Your task to perform on an android device: open app "Mercado Libre" (install if not already installed), go to login, and select forgot password Image 0: 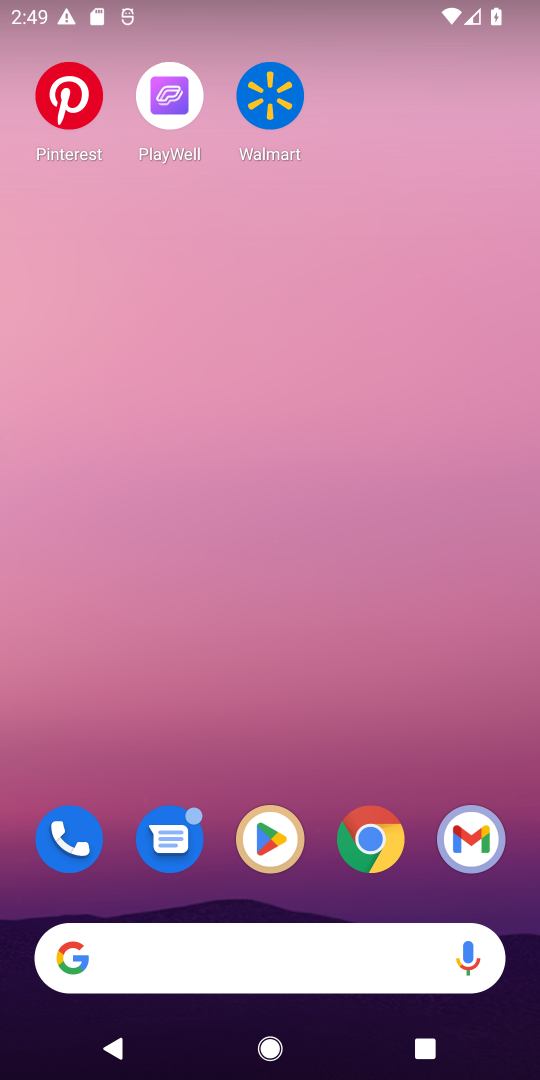
Step 0: click (280, 859)
Your task to perform on an android device: open app "Mercado Libre" (install if not already installed), go to login, and select forgot password Image 1: 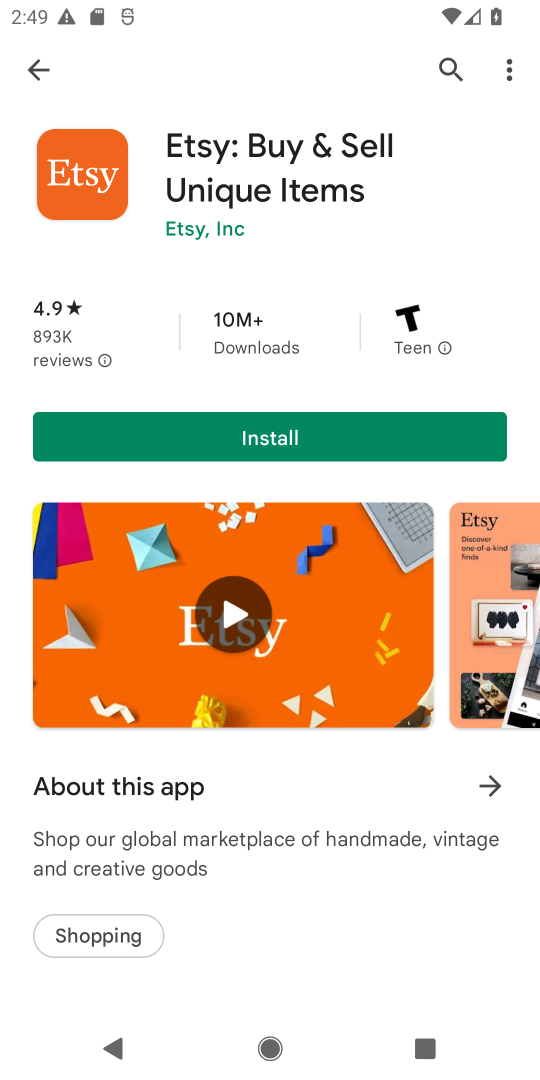
Step 1: click (41, 80)
Your task to perform on an android device: open app "Mercado Libre" (install if not already installed), go to login, and select forgot password Image 2: 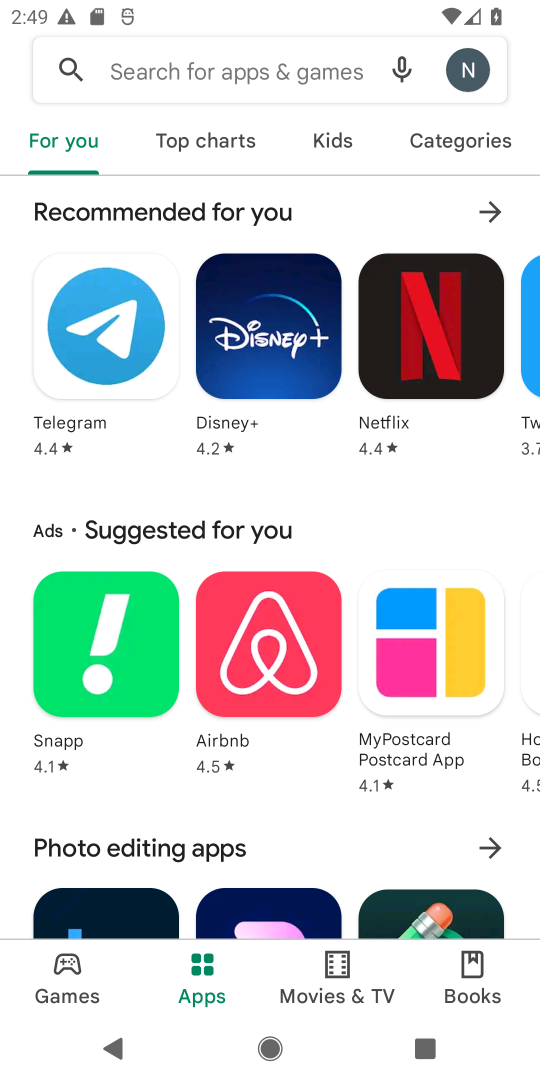
Step 2: click (236, 84)
Your task to perform on an android device: open app "Mercado Libre" (install if not already installed), go to login, and select forgot password Image 3: 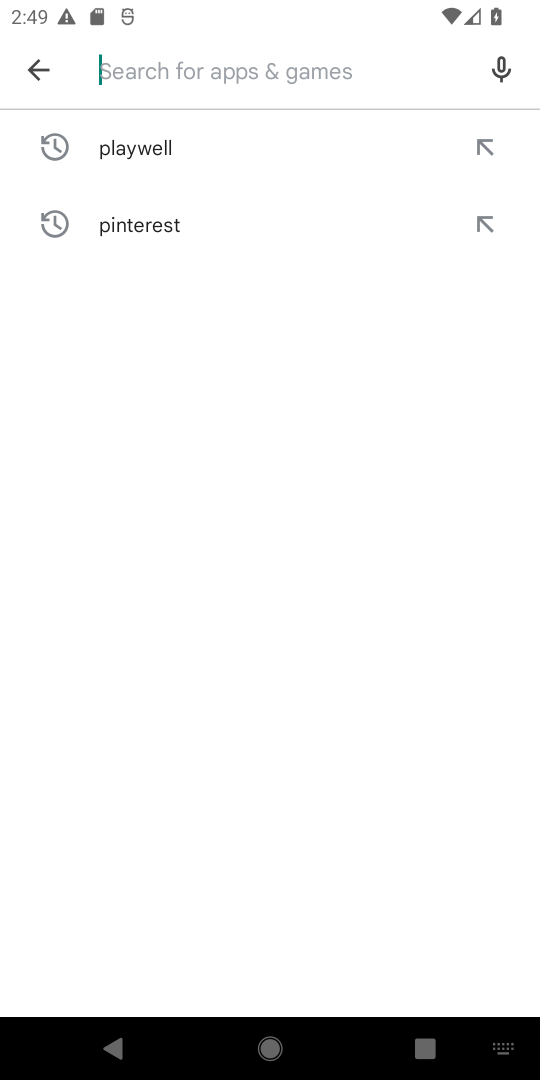
Step 3: type "Mercado Libre"
Your task to perform on an android device: open app "Mercado Libre" (install if not already installed), go to login, and select forgot password Image 4: 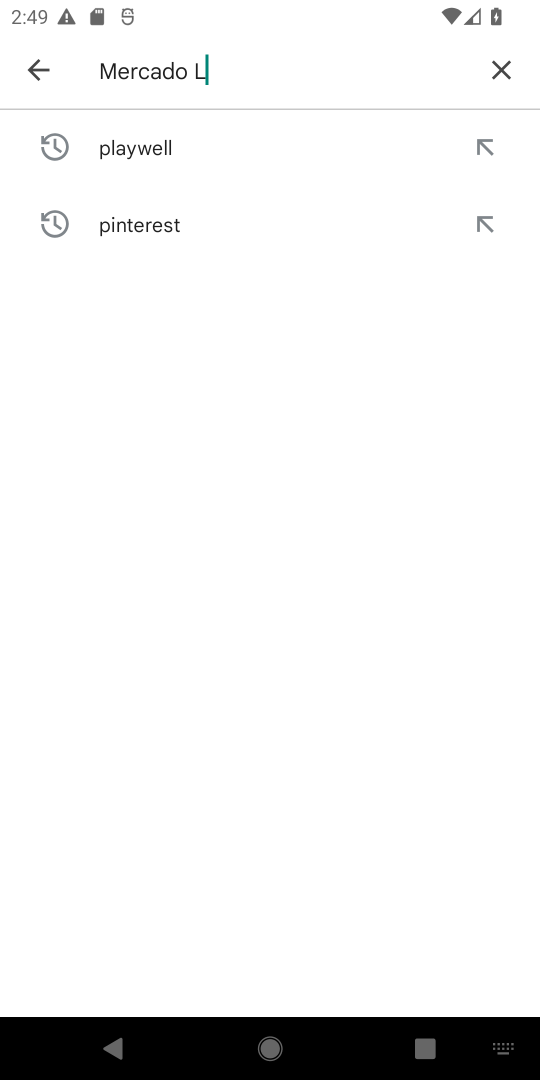
Step 4: type ""
Your task to perform on an android device: open app "Mercado Libre" (install if not already installed), go to login, and select forgot password Image 5: 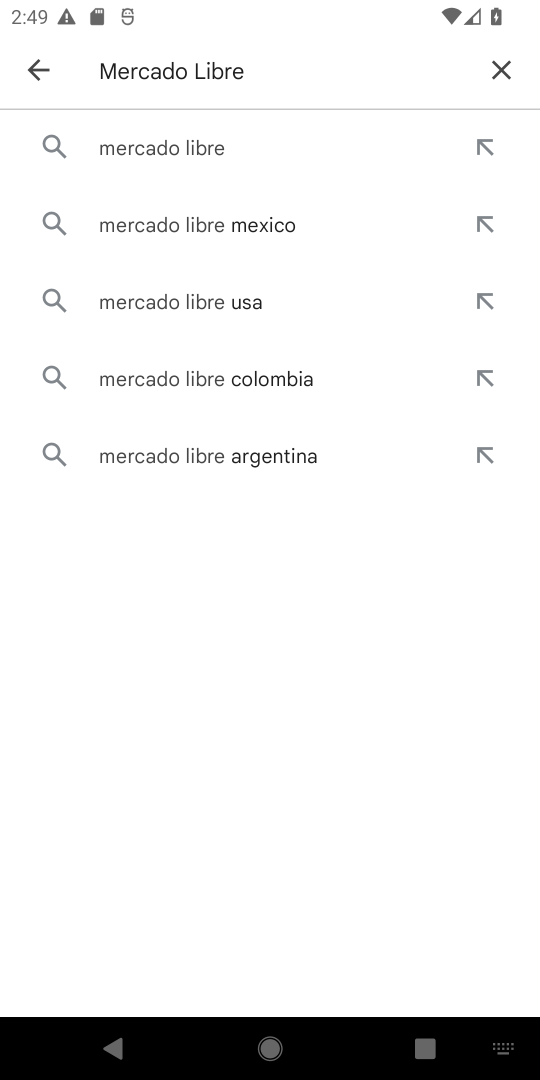
Step 5: click (194, 142)
Your task to perform on an android device: open app "Mercado Libre" (install if not already installed), go to login, and select forgot password Image 6: 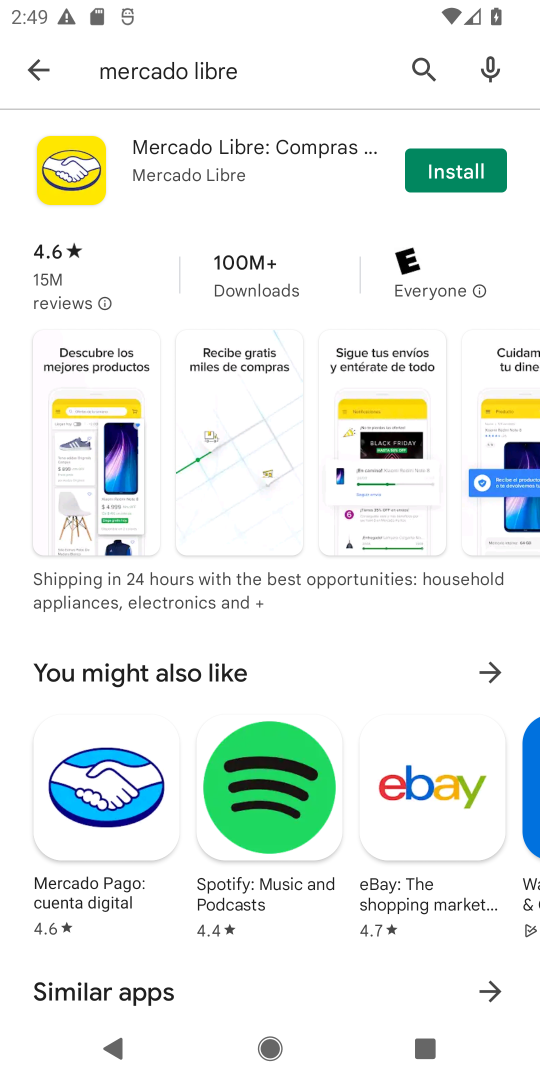
Step 6: click (436, 174)
Your task to perform on an android device: open app "Mercado Libre" (install if not already installed), go to login, and select forgot password Image 7: 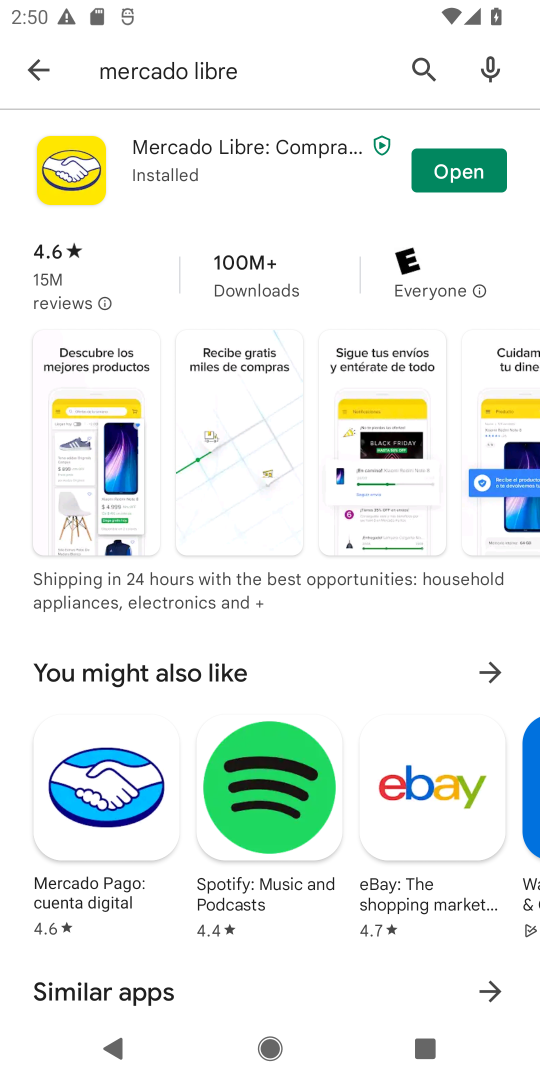
Step 7: click (427, 167)
Your task to perform on an android device: open app "Mercado Libre" (install if not already installed), go to login, and select forgot password Image 8: 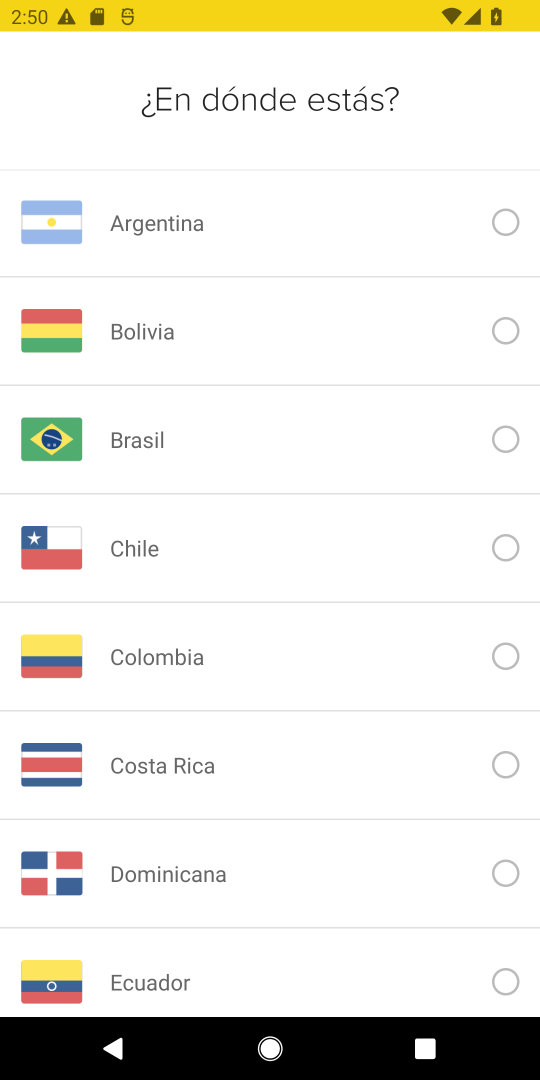
Step 8: drag from (219, 677) to (170, 64)
Your task to perform on an android device: open app "Mercado Libre" (install if not already installed), go to login, and select forgot password Image 9: 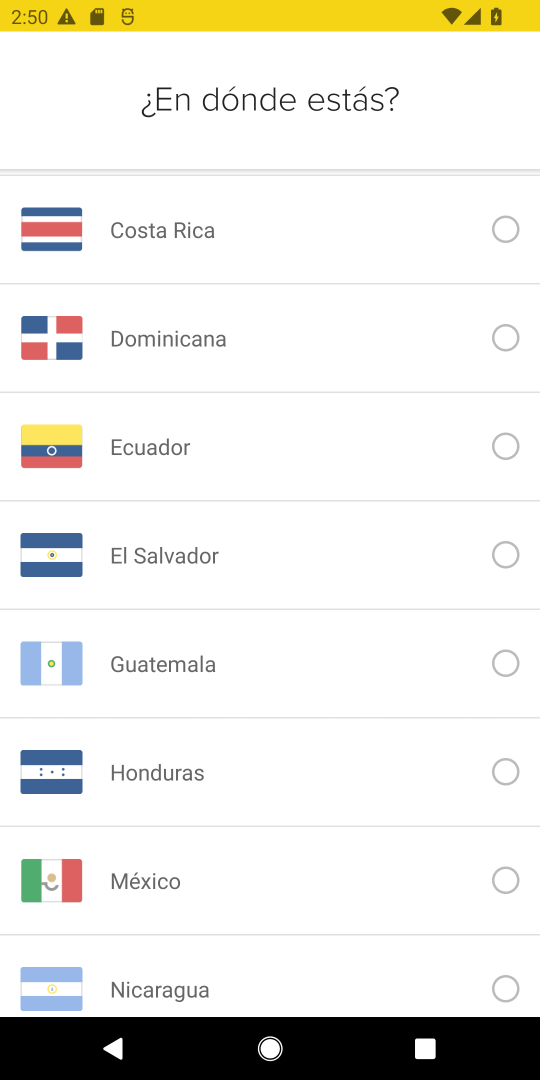
Step 9: drag from (169, 801) to (208, 186)
Your task to perform on an android device: open app "Mercado Libre" (install if not already installed), go to login, and select forgot password Image 10: 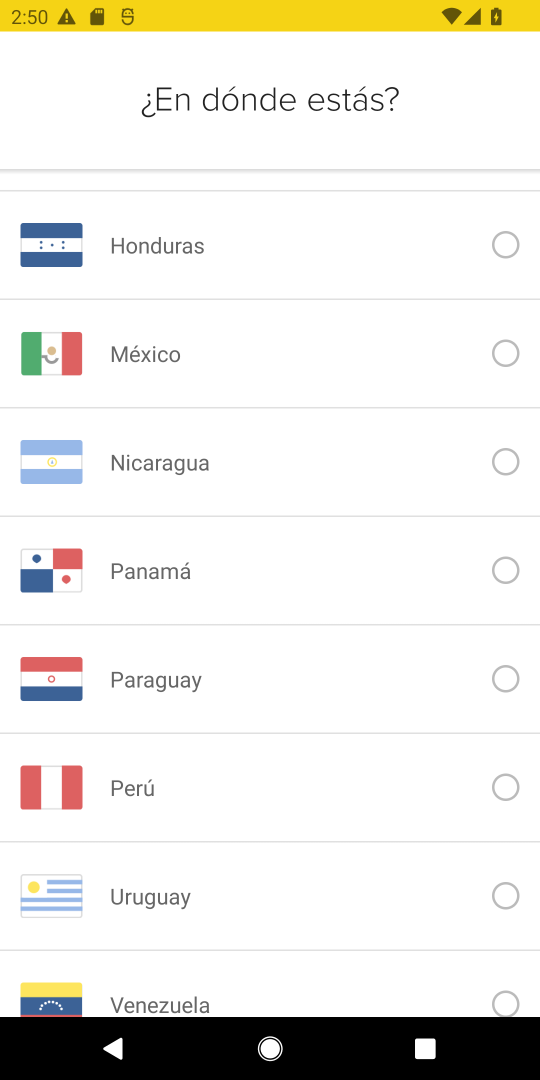
Step 10: drag from (187, 753) to (154, 98)
Your task to perform on an android device: open app "Mercado Libre" (install if not already installed), go to login, and select forgot password Image 11: 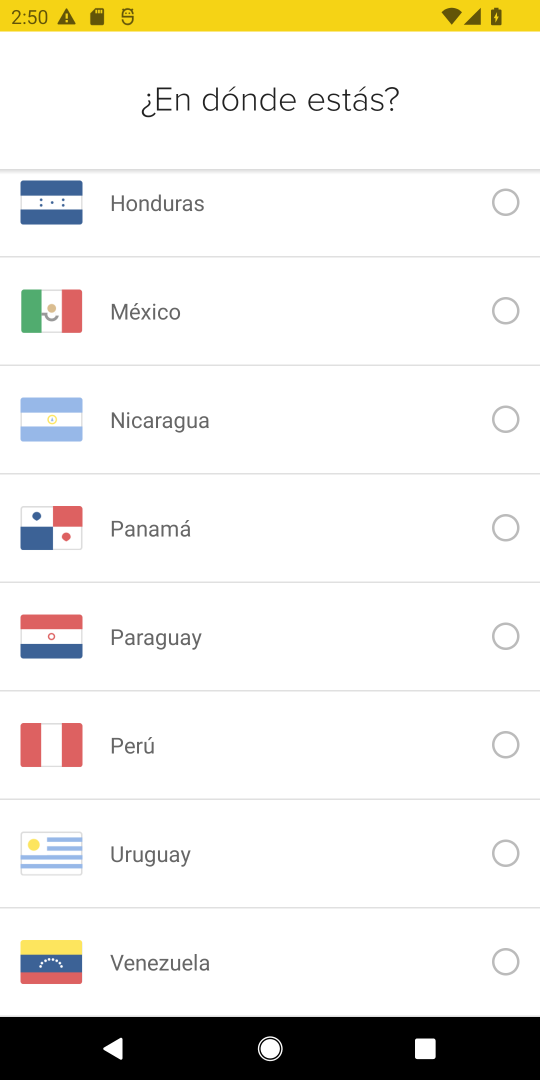
Step 11: drag from (145, 311) to (156, 972)
Your task to perform on an android device: open app "Mercado Libre" (install if not already installed), go to login, and select forgot password Image 12: 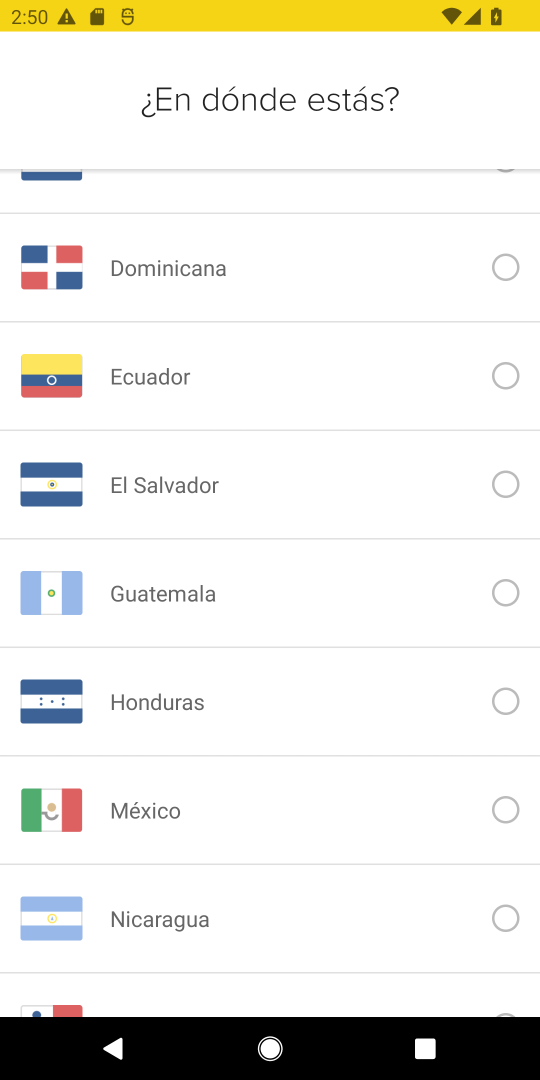
Step 12: drag from (166, 393) to (149, 849)
Your task to perform on an android device: open app "Mercado Libre" (install if not already installed), go to login, and select forgot password Image 13: 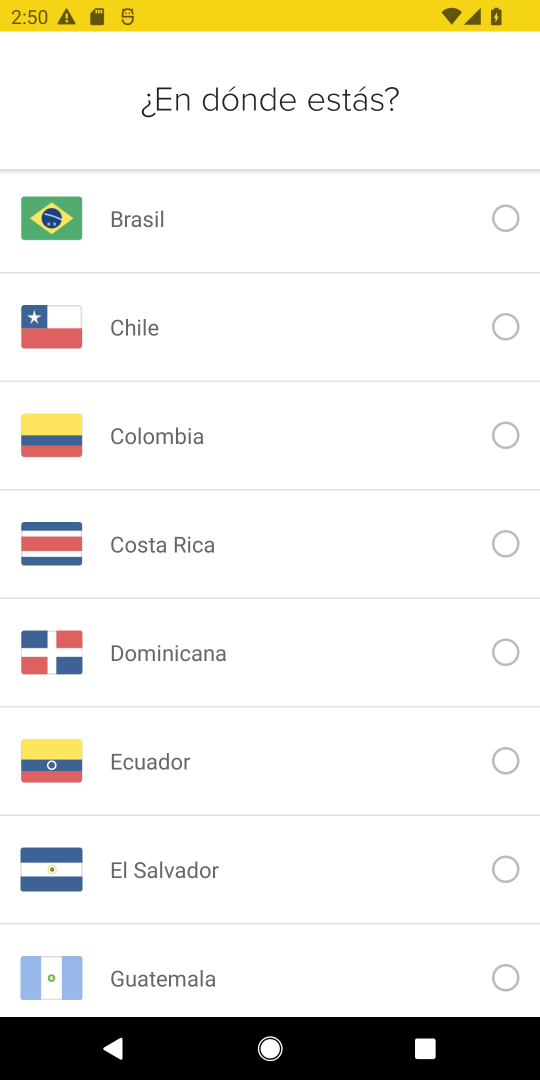
Step 13: drag from (101, 261) to (204, 748)
Your task to perform on an android device: open app "Mercado Libre" (install if not already installed), go to login, and select forgot password Image 14: 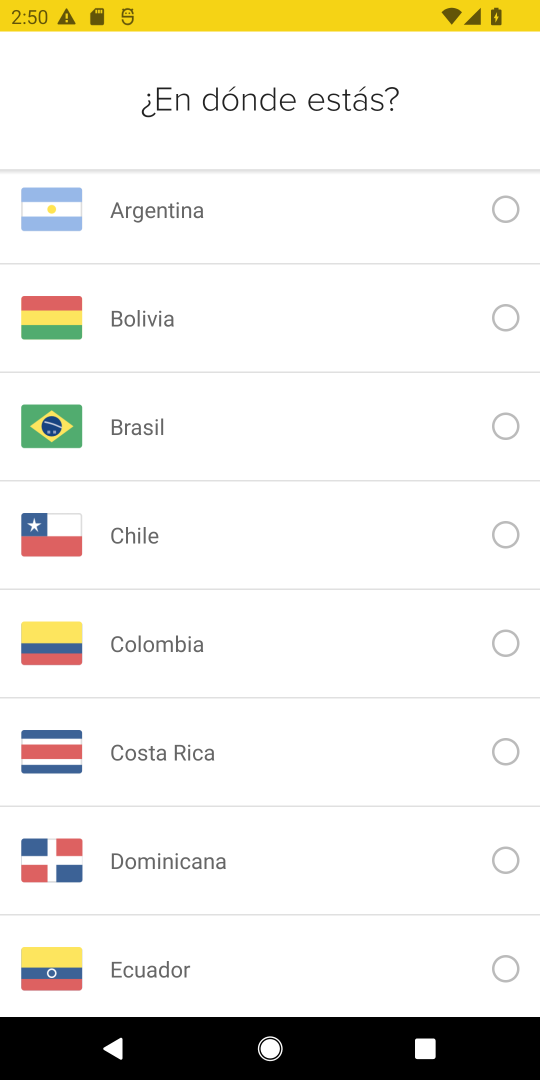
Step 14: click (377, 658)
Your task to perform on an android device: open app "Mercado Libre" (install if not already installed), go to login, and select forgot password Image 15: 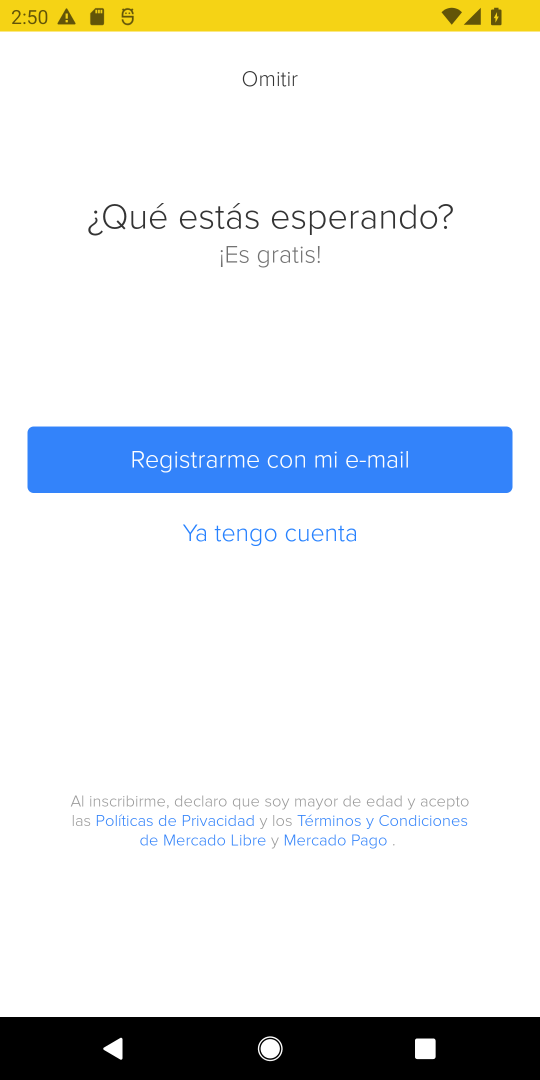
Step 15: click (224, 534)
Your task to perform on an android device: open app "Mercado Libre" (install if not already installed), go to login, and select forgot password Image 16: 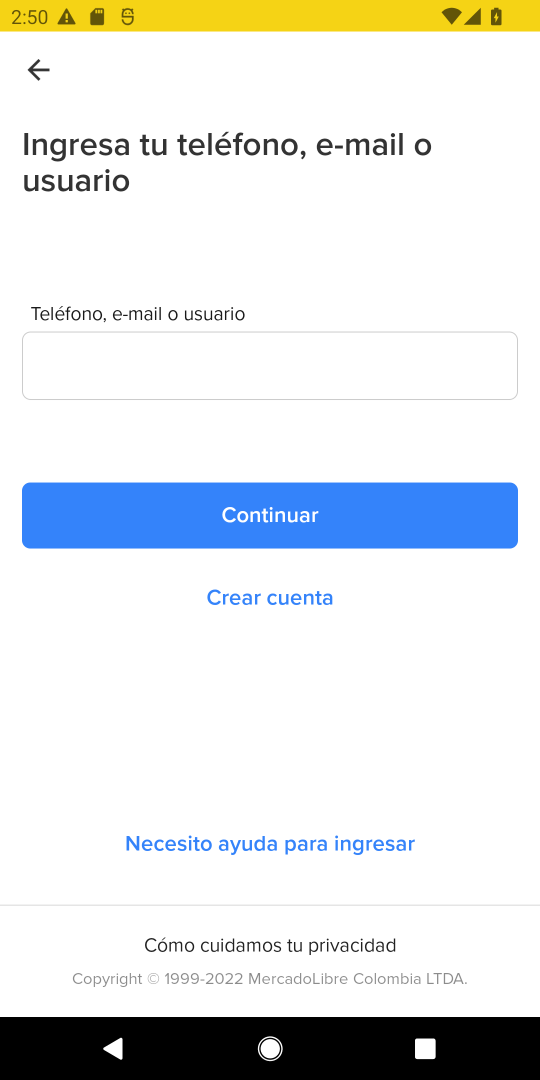
Step 16: task complete